Your task to perform on an android device: toggle translation in the chrome app Image 0: 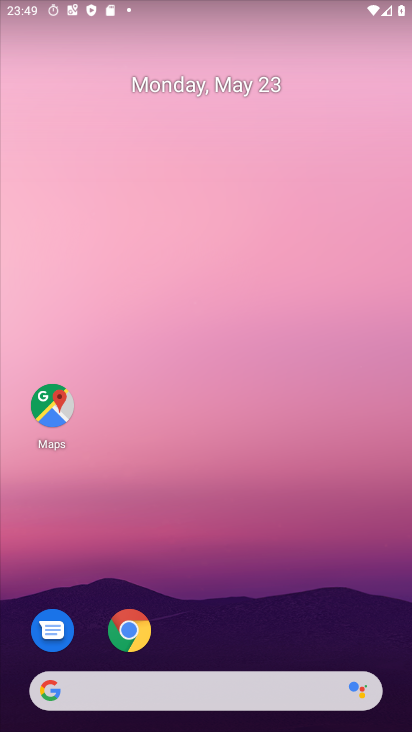
Step 0: click (138, 634)
Your task to perform on an android device: toggle translation in the chrome app Image 1: 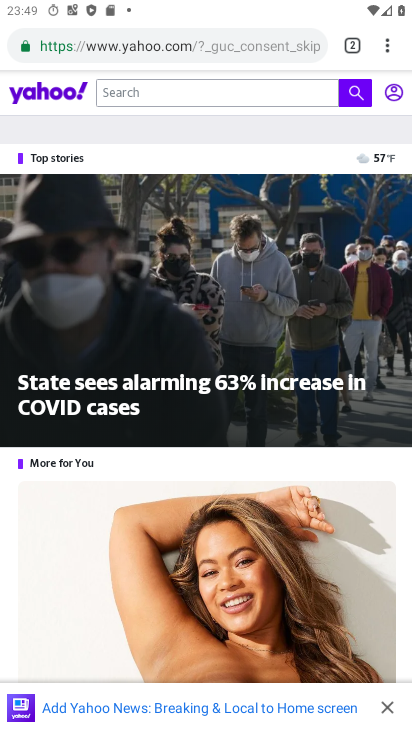
Step 1: click (389, 45)
Your task to perform on an android device: toggle translation in the chrome app Image 2: 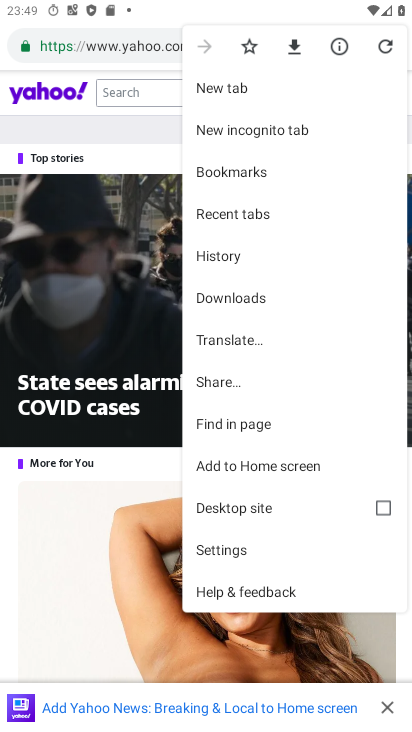
Step 2: click (235, 553)
Your task to perform on an android device: toggle translation in the chrome app Image 3: 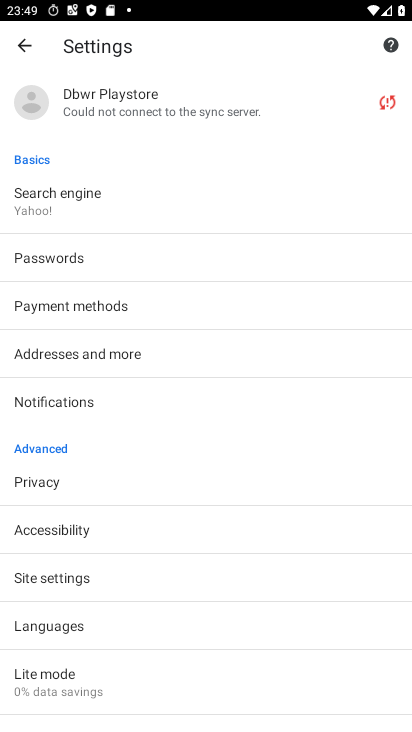
Step 3: click (57, 629)
Your task to perform on an android device: toggle translation in the chrome app Image 4: 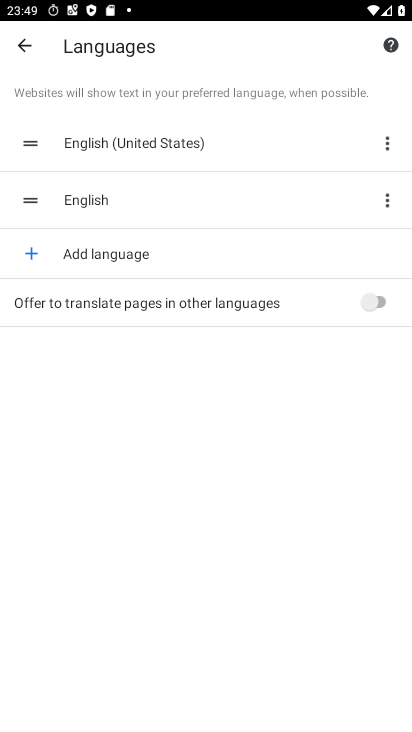
Step 4: click (370, 305)
Your task to perform on an android device: toggle translation in the chrome app Image 5: 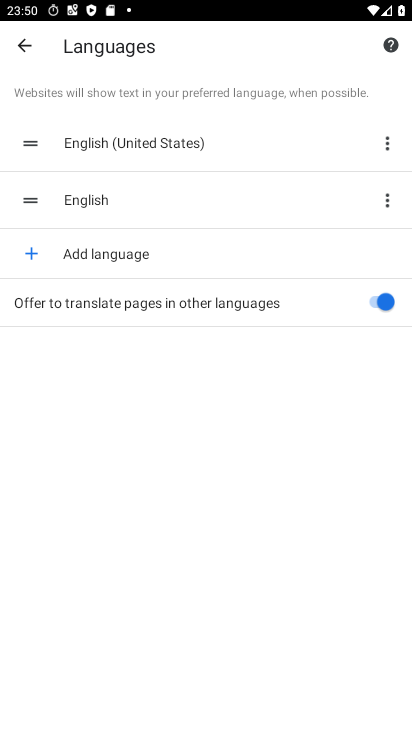
Step 5: task complete